Your task to perform on an android device: Open Google Chrome Image 0: 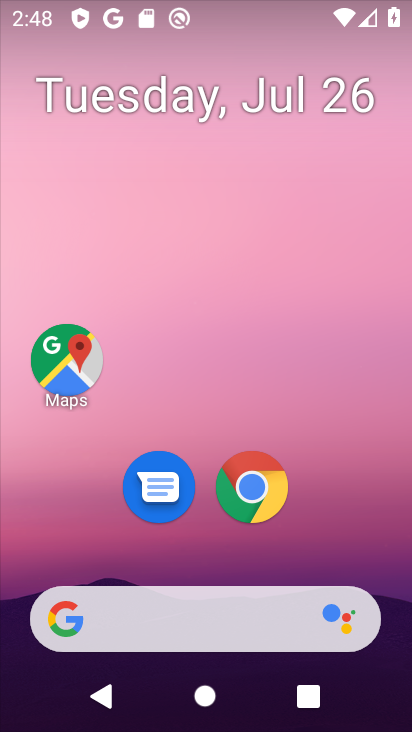
Step 0: click (238, 488)
Your task to perform on an android device: Open Google Chrome Image 1: 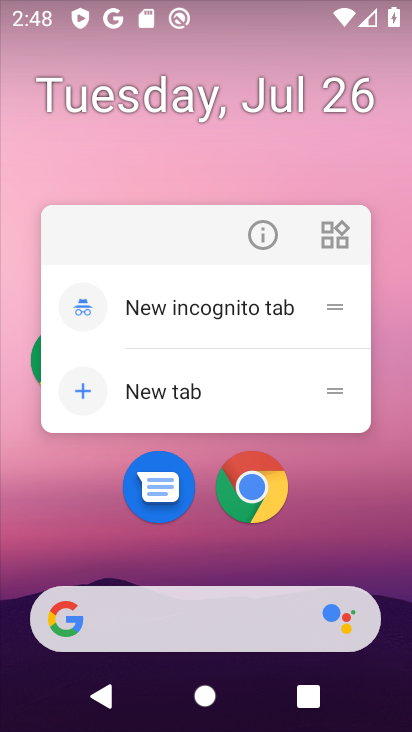
Step 1: click (250, 489)
Your task to perform on an android device: Open Google Chrome Image 2: 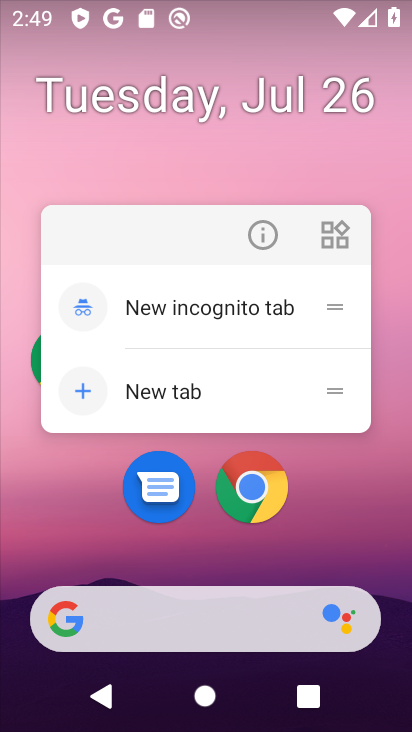
Step 2: click (247, 476)
Your task to perform on an android device: Open Google Chrome Image 3: 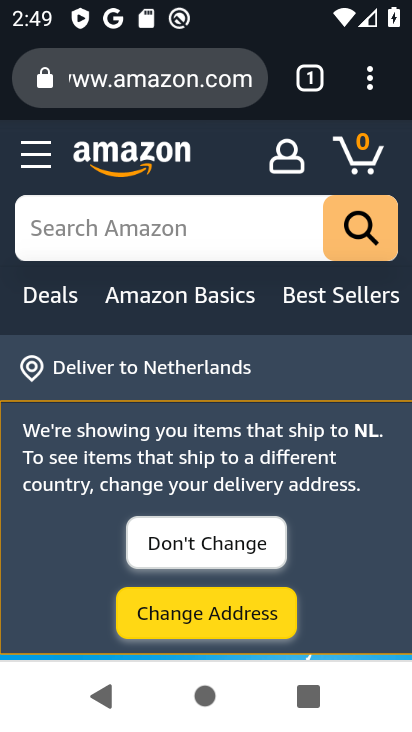
Step 3: task complete